Your task to perform on an android device: Open the Play Movies app and select the watchlist tab. Image 0: 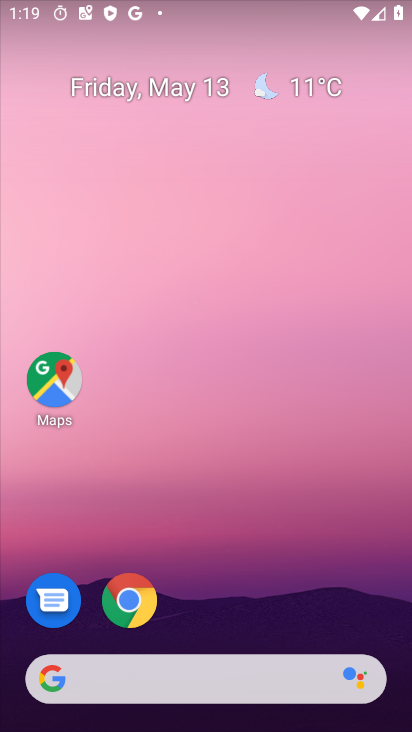
Step 0: click (338, 136)
Your task to perform on an android device: Open the Play Movies app and select the watchlist tab. Image 1: 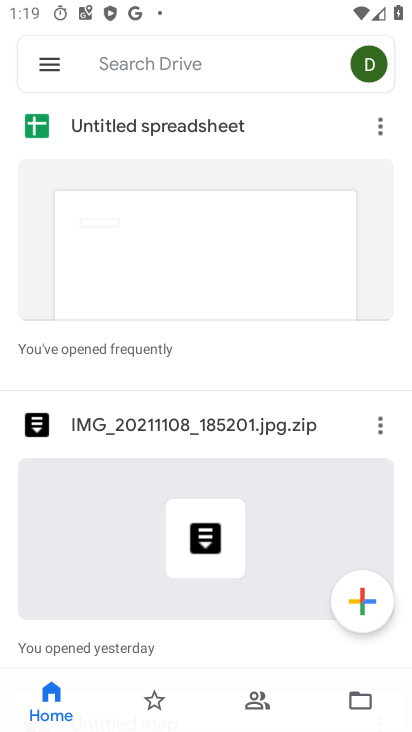
Step 1: press home button
Your task to perform on an android device: Open the Play Movies app and select the watchlist tab. Image 2: 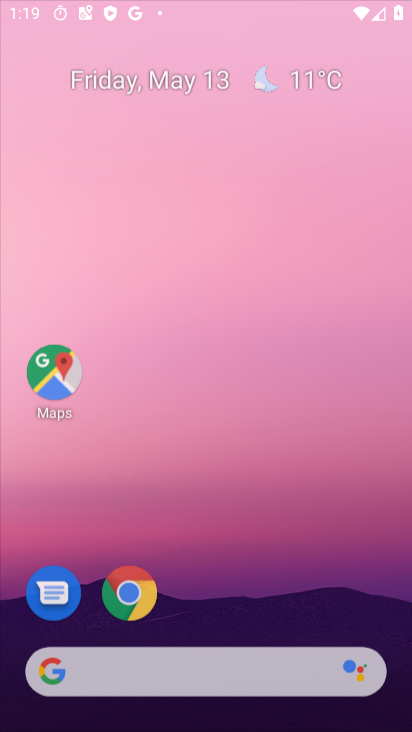
Step 2: drag from (169, 623) to (306, 110)
Your task to perform on an android device: Open the Play Movies app and select the watchlist tab. Image 3: 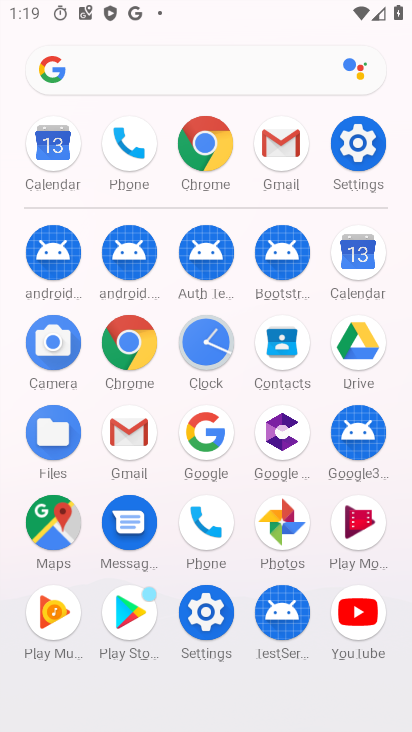
Step 3: click (371, 532)
Your task to perform on an android device: Open the Play Movies app and select the watchlist tab. Image 4: 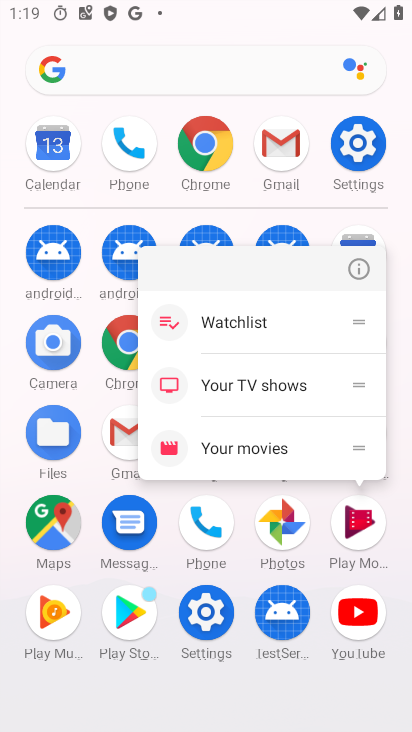
Step 4: click (359, 252)
Your task to perform on an android device: Open the Play Movies app and select the watchlist tab. Image 5: 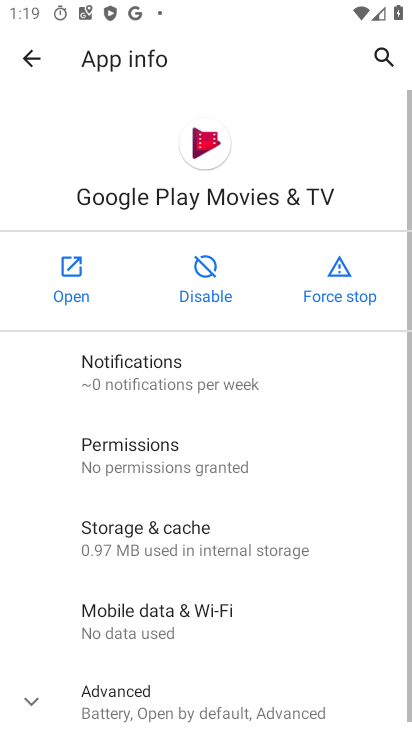
Step 5: click (61, 291)
Your task to perform on an android device: Open the Play Movies app and select the watchlist tab. Image 6: 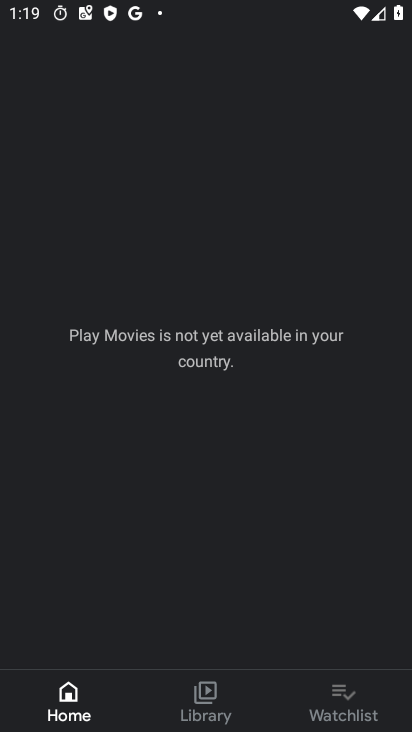
Step 6: click (345, 693)
Your task to perform on an android device: Open the Play Movies app and select the watchlist tab. Image 7: 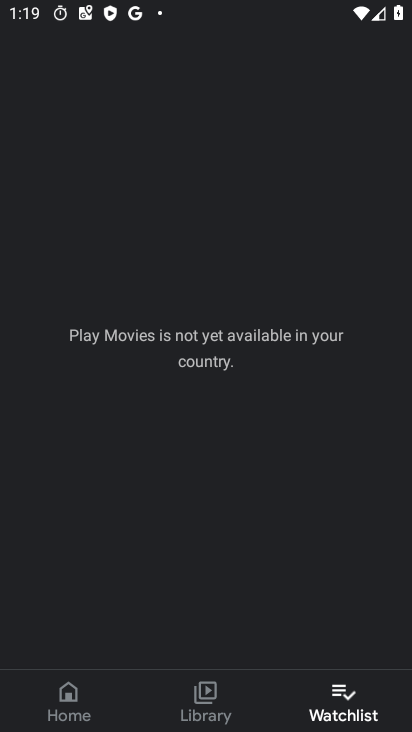
Step 7: task complete